Your task to perform on an android device: Open network settings Image 0: 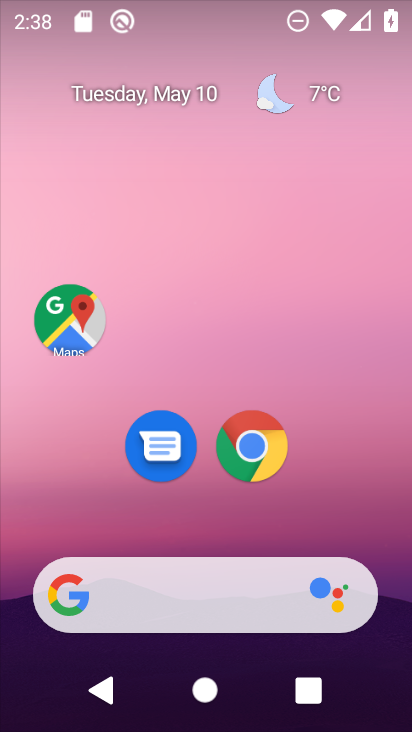
Step 0: click (260, 141)
Your task to perform on an android device: Open network settings Image 1: 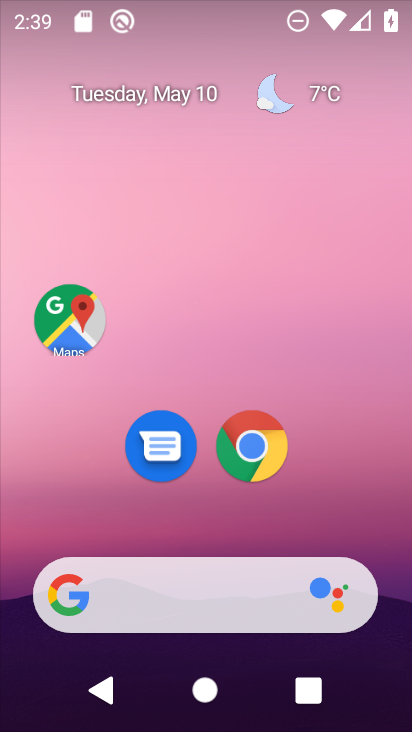
Step 1: drag from (291, 478) to (213, 54)
Your task to perform on an android device: Open network settings Image 2: 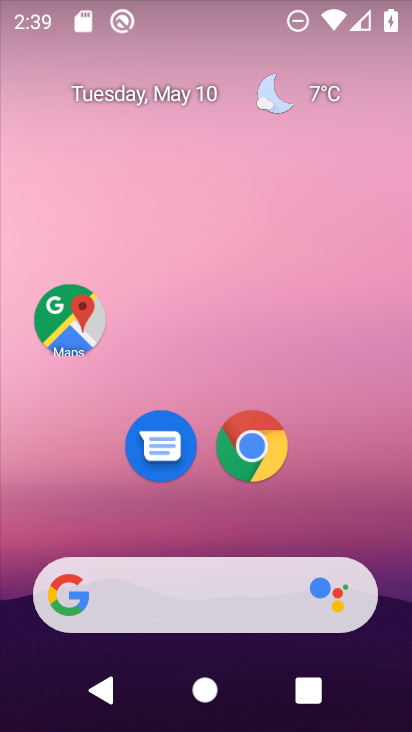
Step 2: drag from (353, 505) to (252, 69)
Your task to perform on an android device: Open network settings Image 3: 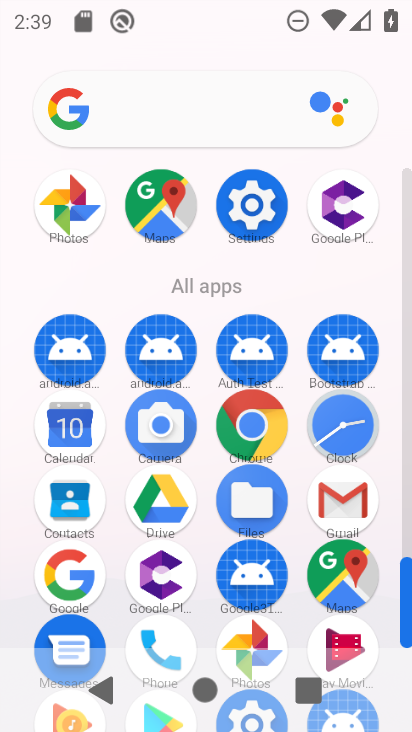
Step 3: click (253, 203)
Your task to perform on an android device: Open network settings Image 4: 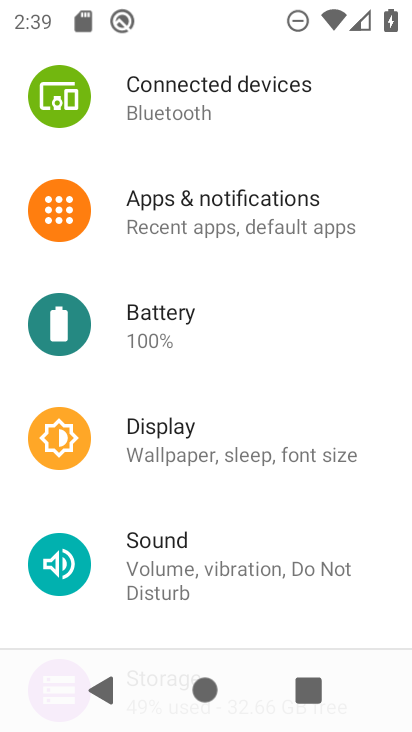
Step 4: drag from (252, 125) to (198, 556)
Your task to perform on an android device: Open network settings Image 5: 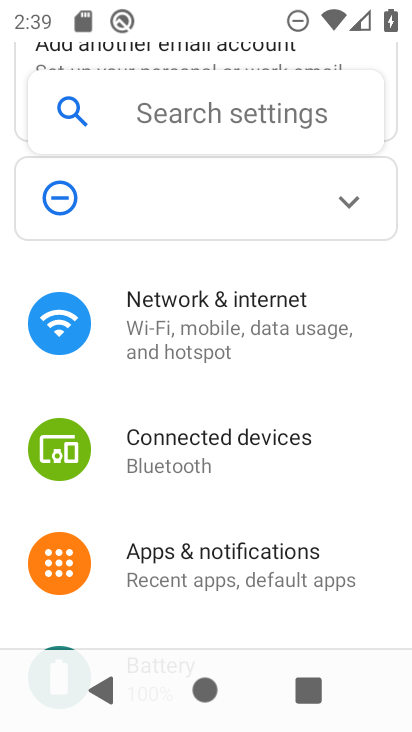
Step 5: click (214, 294)
Your task to perform on an android device: Open network settings Image 6: 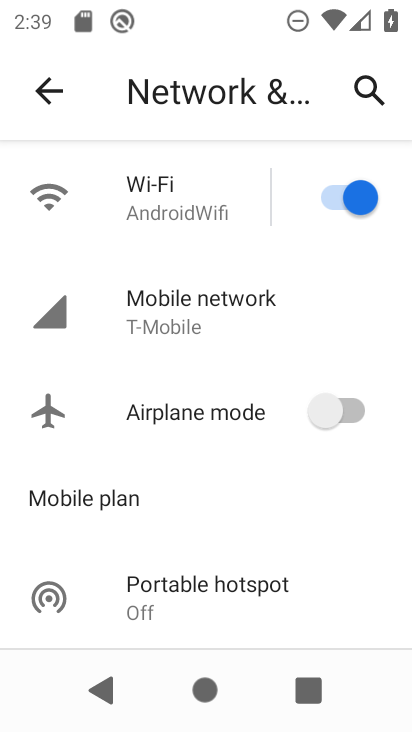
Step 6: click (189, 306)
Your task to perform on an android device: Open network settings Image 7: 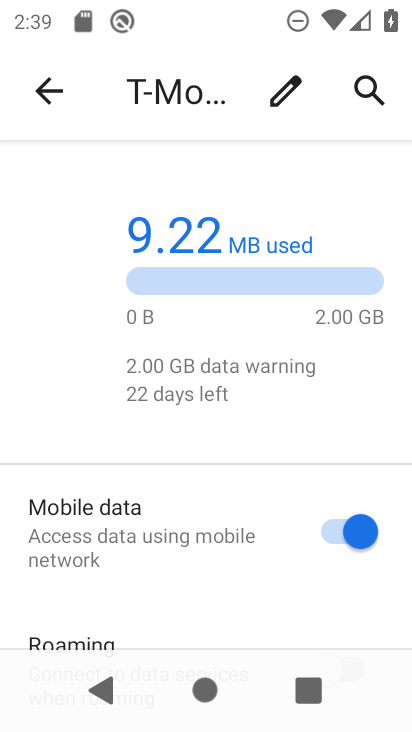
Step 7: task complete